Your task to perform on an android device: Go to CNN.com Image 0: 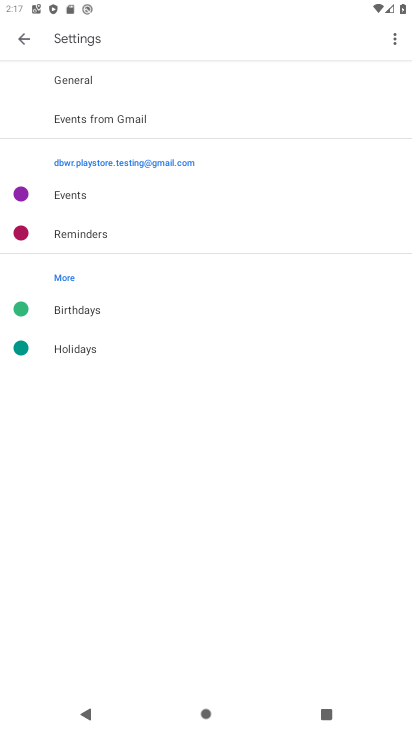
Step 0: press home button
Your task to perform on an android device: Go to CNN.com Image 1: 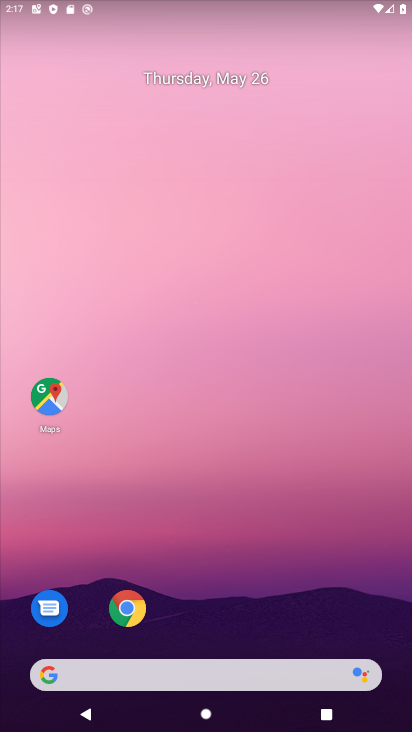
Step 1: drag from (278, 560) to (328, 75)
Your task to perform on an android device: Go to CNN.com Image 2: 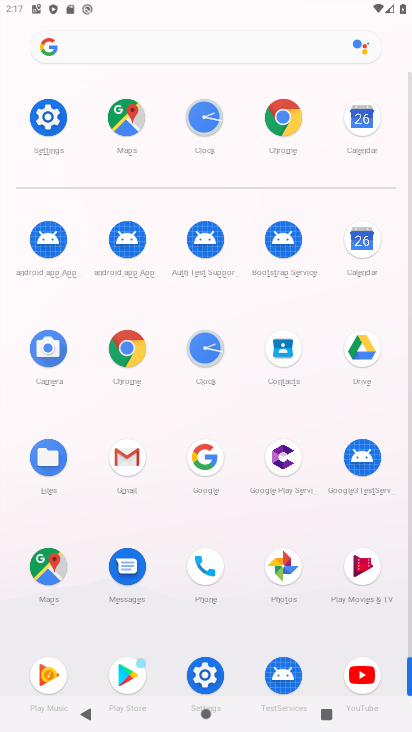
Step 2: click (282, 125)
Your task to perform on an android device: Go to CNN.com Image 3: 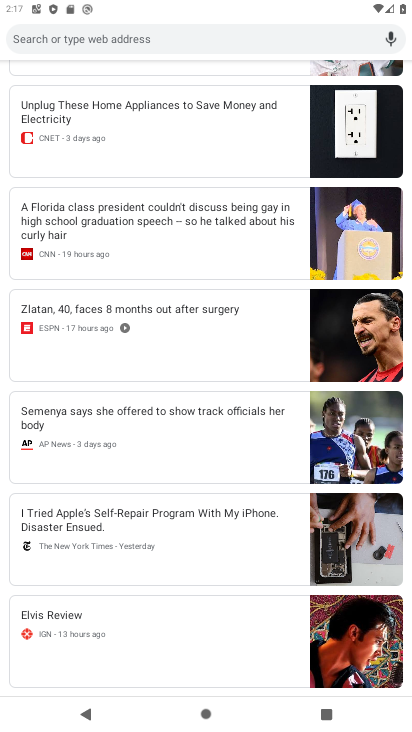
Step 3: drag from (282, 125) to (214, 605)
Your task to perform on an android device: Go to CNN.com Image 4: 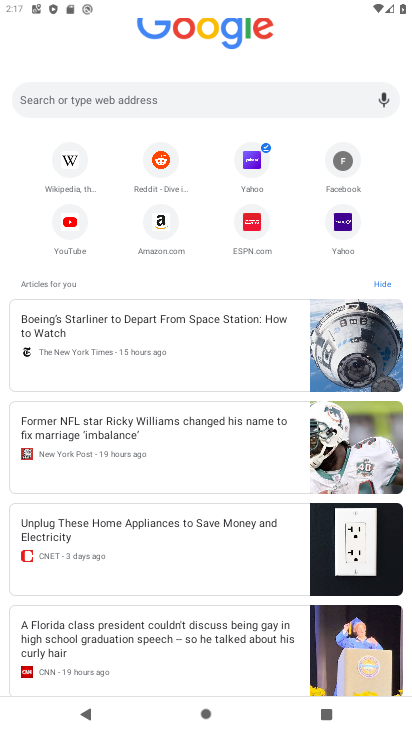
Step 4: drag from (152, 327) to (206, 664)
Your task to perform on an android device: Go to CNN.com Image 5: 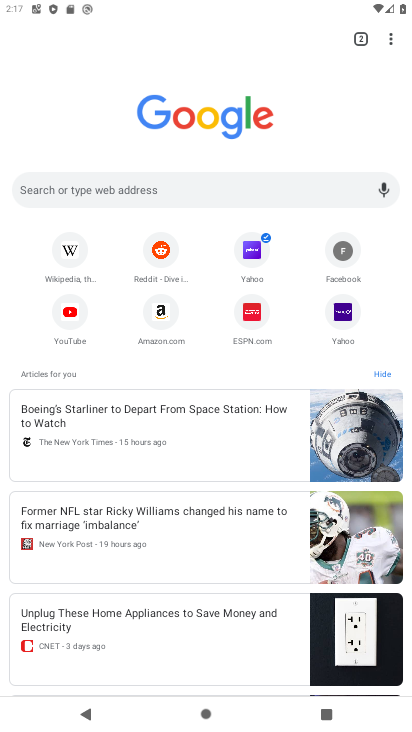
Step 5: click (130, 181)
Your task to perform on an android device: Go to CNN.com Image 6: 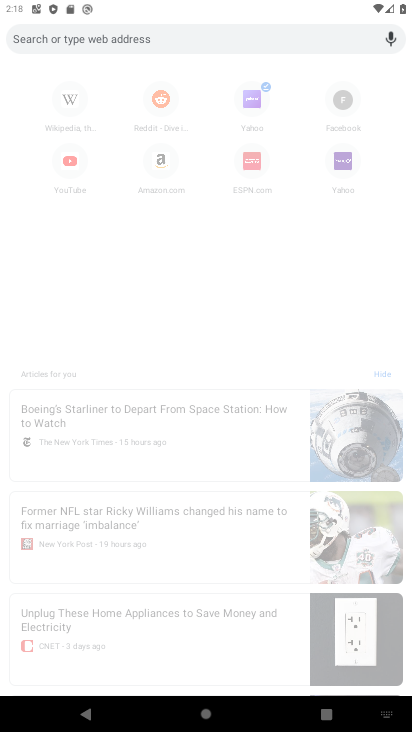
Step 6: type "cnn"
Your task to perform on an android device: Go to CNN.com Image 7: 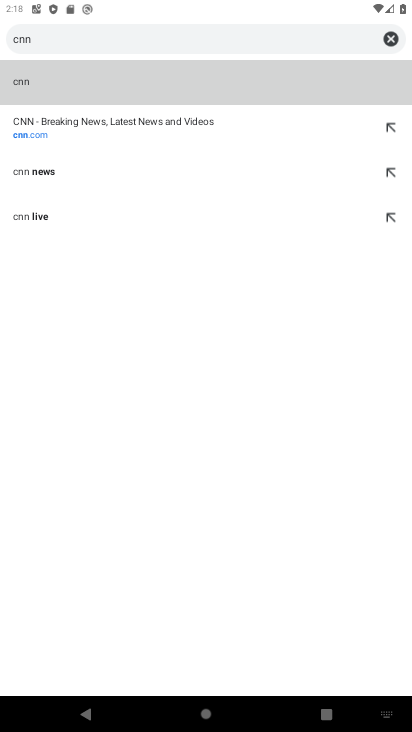
Step 7: click (35, 125)
Your task to perform on an android device: Go to CNN.com Image 8: 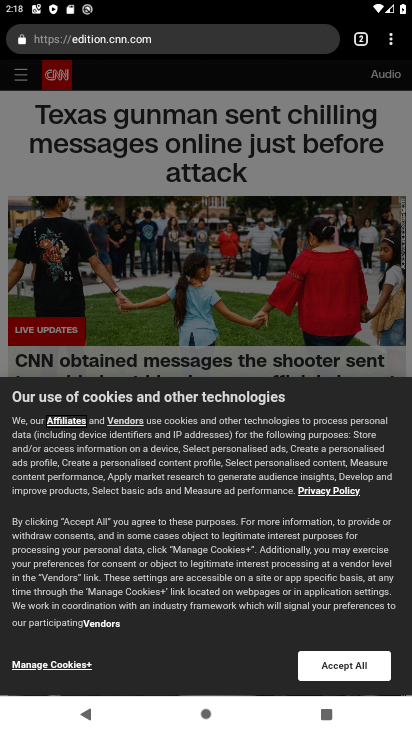
Step 8: task complete